Your task to perform on an android device: Open the phone app and click the voicemail tab. Image 0: 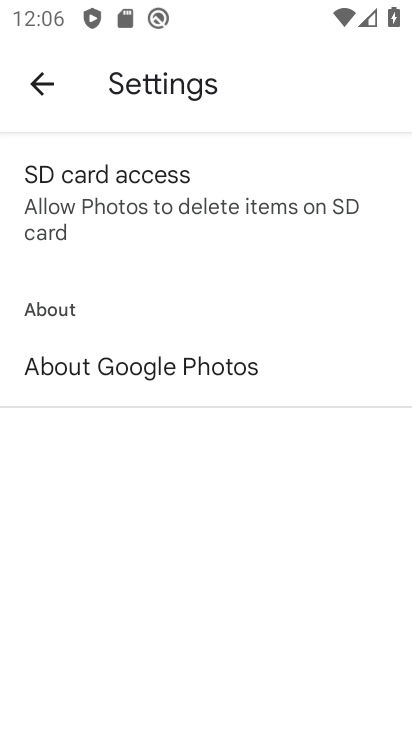
Step 0: press home button
Your task to perform on an android device: Open the phone app and click the voicemail tab. Image 1: 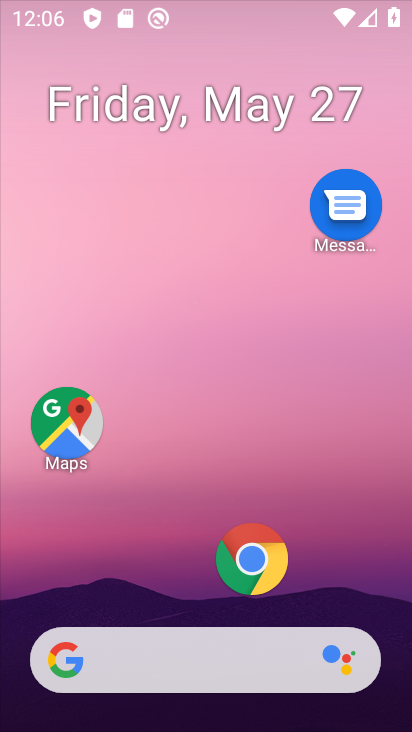
Step 1: drag from (188, 640) to (236, 92)
Your task to perform on an android device: Open the phone app and click the voicemail tab. Image 2: 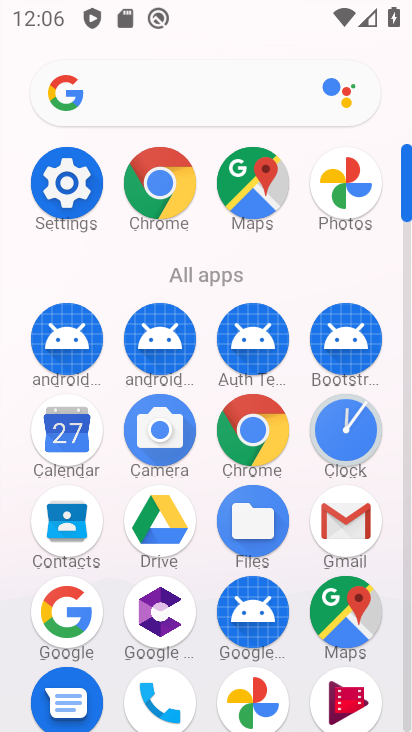
Step 2: drag from (209, 462) to (251, 253)
Your task to perform on an android device: Open the phone app and click the voicemail tab. Image 3: 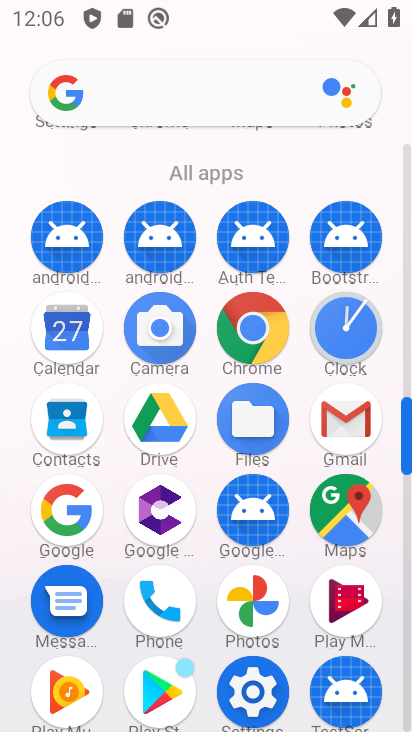
Step 3: click (177, 593)
Your task to perform on an android device: Open the phone app and click the voicemail tab. Image 4: 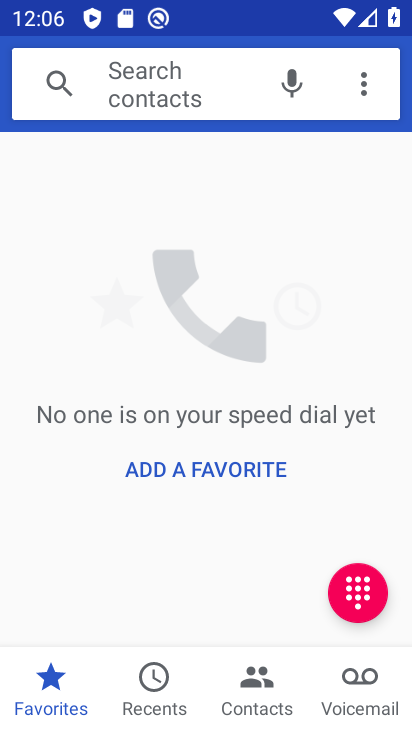
Step 4: click (364, 692)
Your task to perform on an android device: Open the phone app and click the voicemail tab. Image 5: 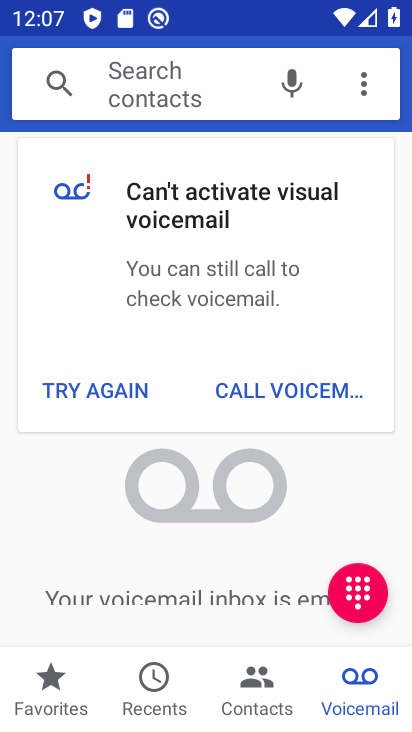
Step 5: task complete